Your task to perform on an android device: turn off wifi Image 0: 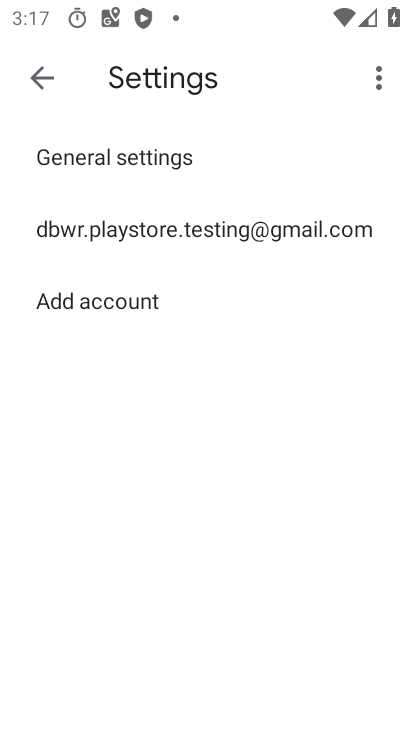
Step 0: press home button
Your task to perform on an android device: turn off wifi Image 1: 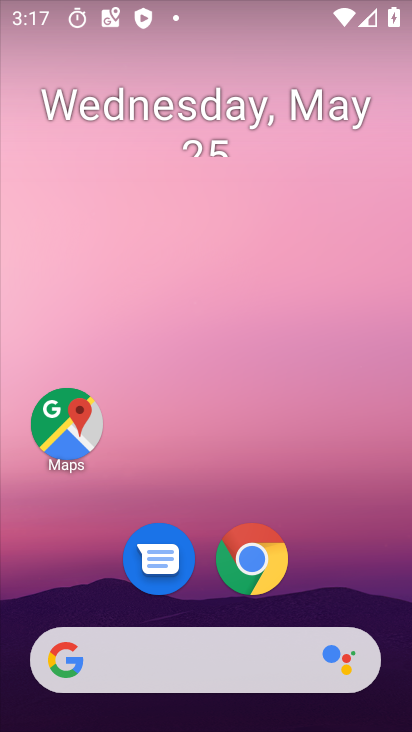
Step 1: drag from (210, 604) to (240, 87)
Your task to perform on an android device: turn off wifi Image 2: 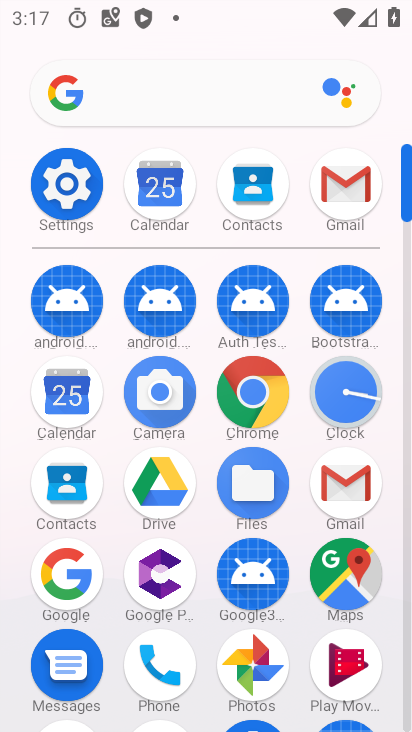
Step 2: click (73, 171)
Your task to perform on an android device: turn off wifi Image 3: 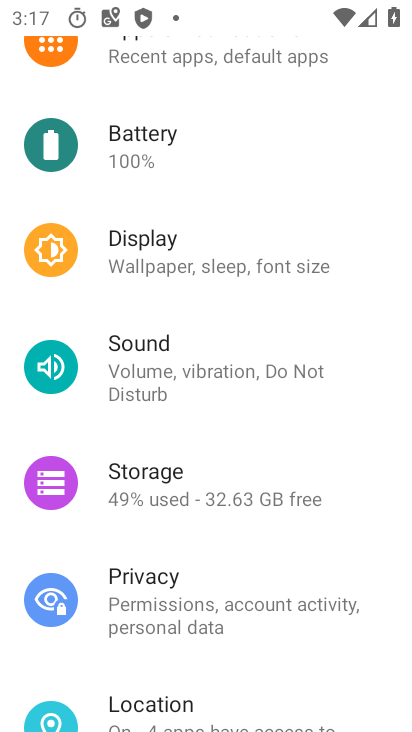
Step 3: drag from (84, 105) to (115, 541)
Your task to perform on an android device: turn off wifi Image 4: 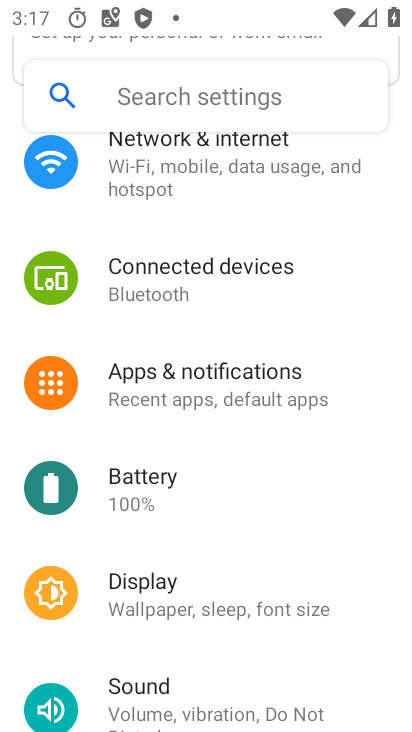
Step 4: click (101, 172)
Your task to perform on an android device: turn off wifi Image 5: 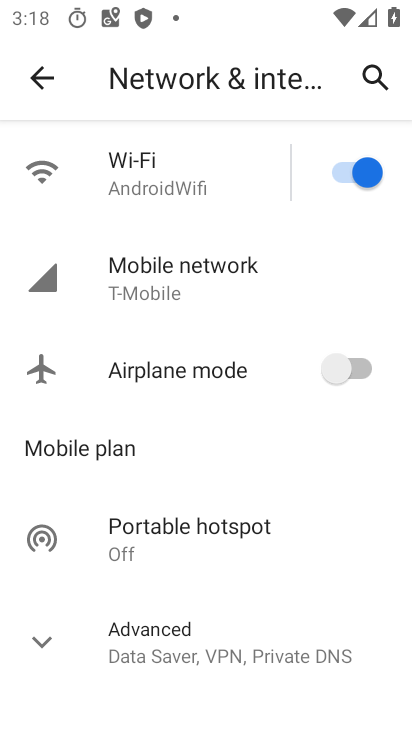
Step 5: click (225, 162)
Your task to perform on an android device: turn off wifi Image 6: 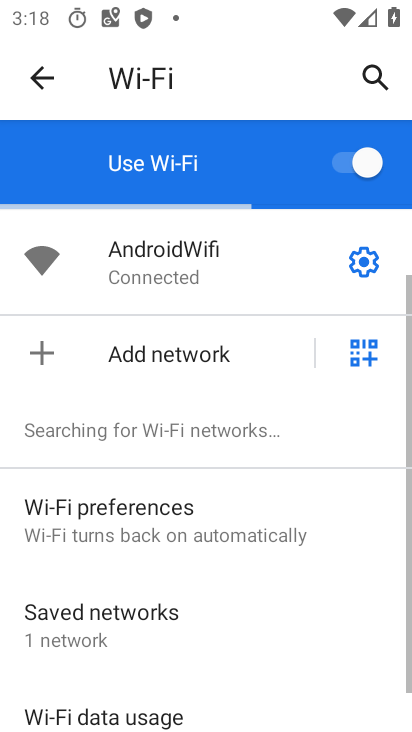
Step 6: task complete